Your task to perform on an android device: Go to settings Image 0: 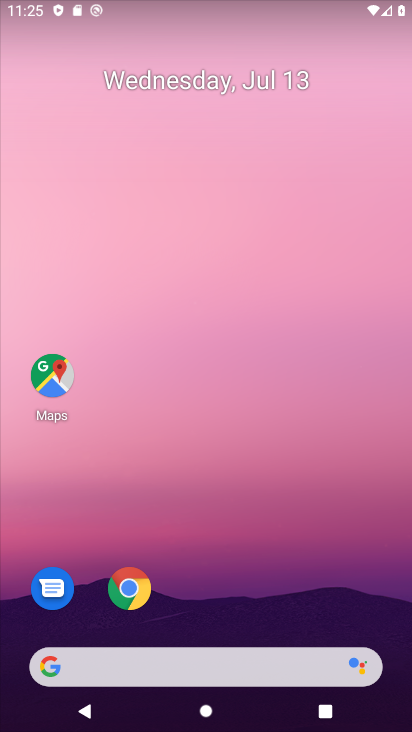
Step 0: drag from (198, 634) to (223, 27)
Your task to perform on an android device: Go to settings Image 1: 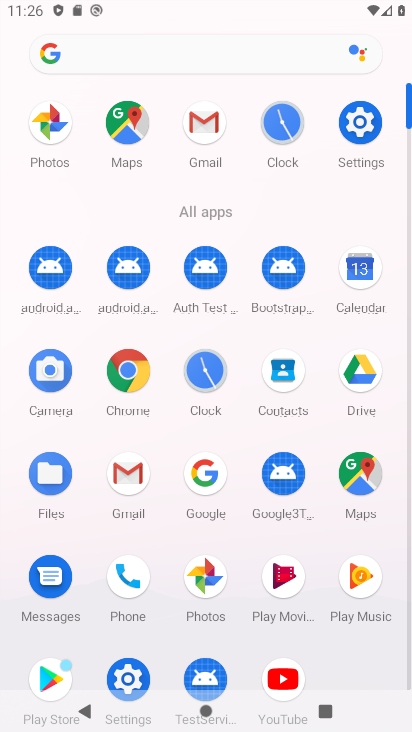
Step 1: click (128, 666)
Your task to perform on an android device: Go to settings Image 2: 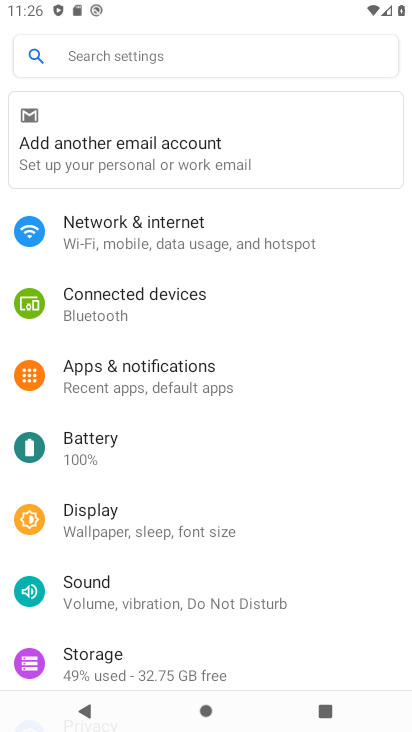
Step 2: task complete